Your task to perform on an android device: When is my next appointment? Image 0: 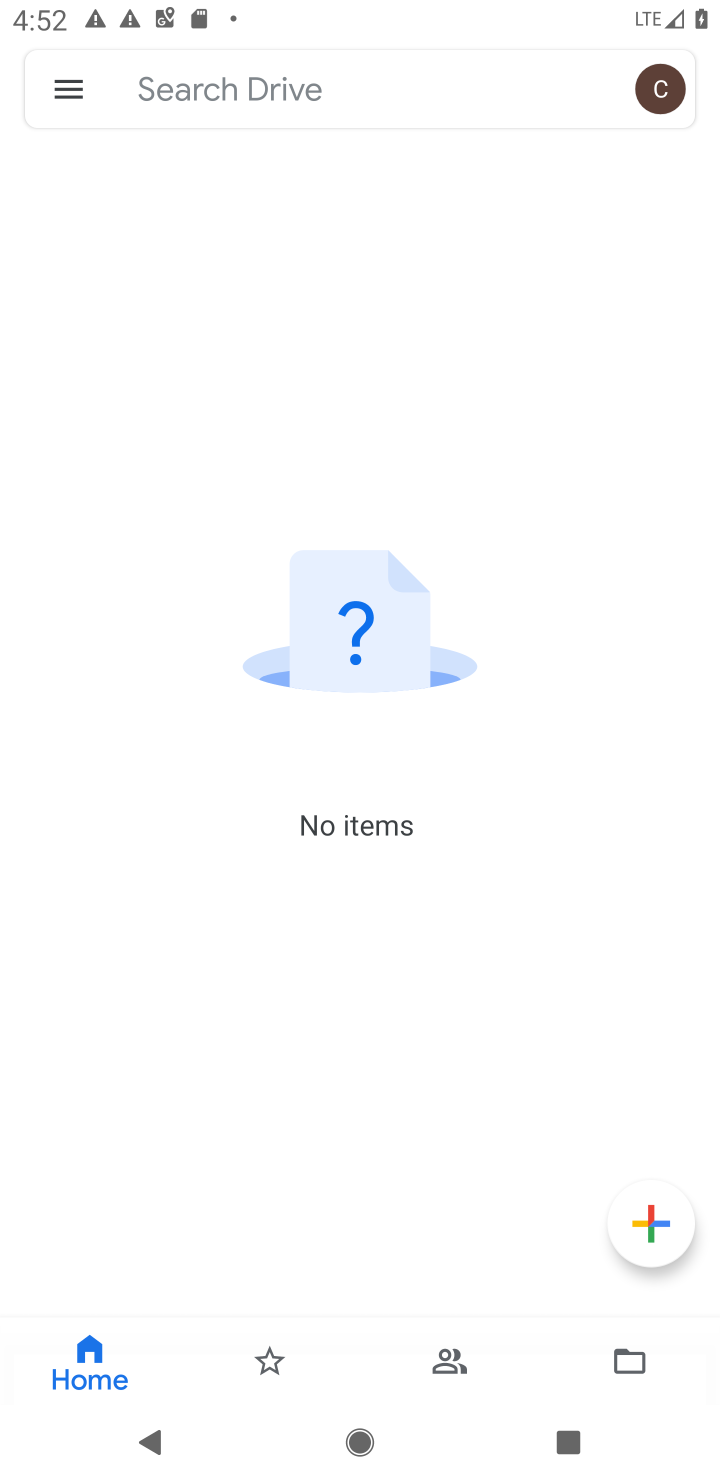
Step 0: press home button
Your task to perform on an android device: When is my next appointment? Image 1: 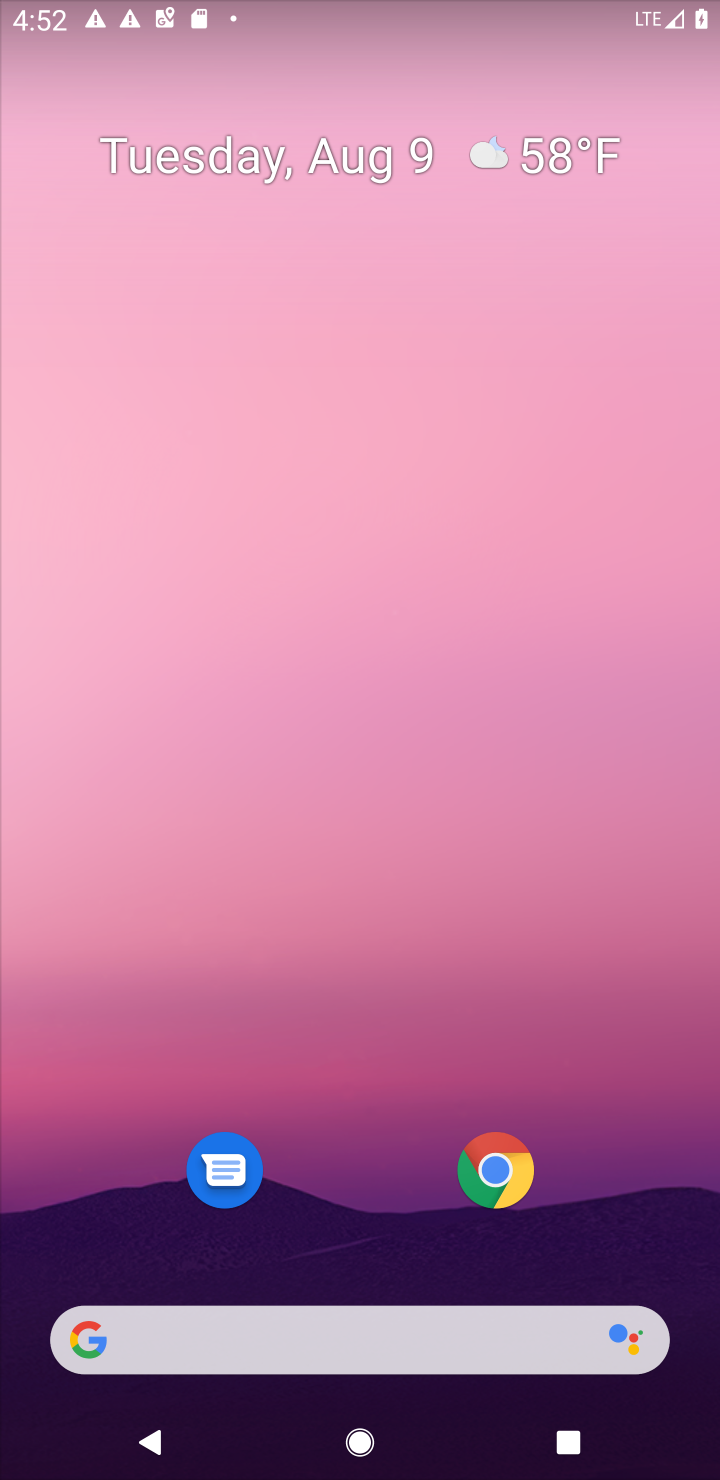
Step 1: drag from (369, 1263) to (398, 30)
Your task to perform on an android device: When is my next appointment? Image 2: 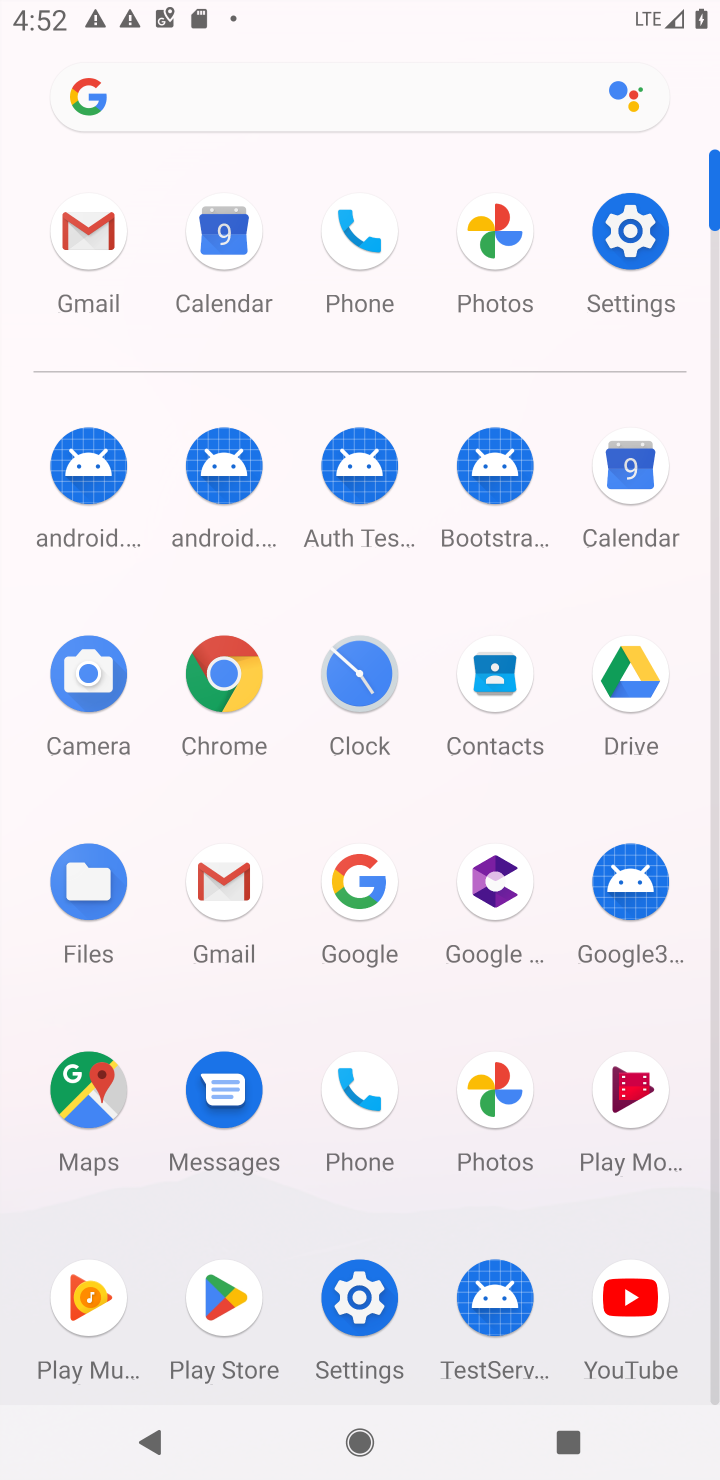
Step 2: click (635, 470)
Your task to perform on an android device: When is my next appointment? Image 3: 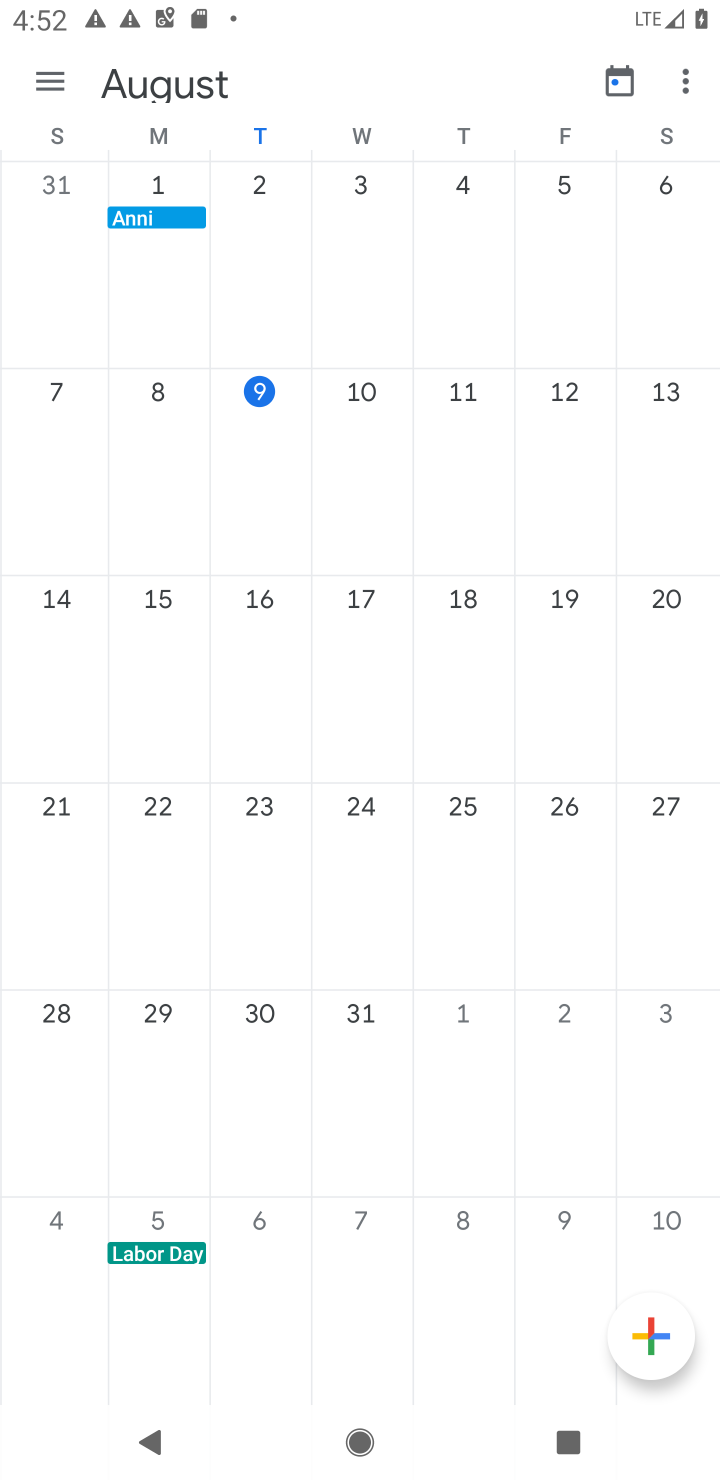
Step 3: click (57, 88)
Your task to perform on an android device: When is my next appointment? Image 4: 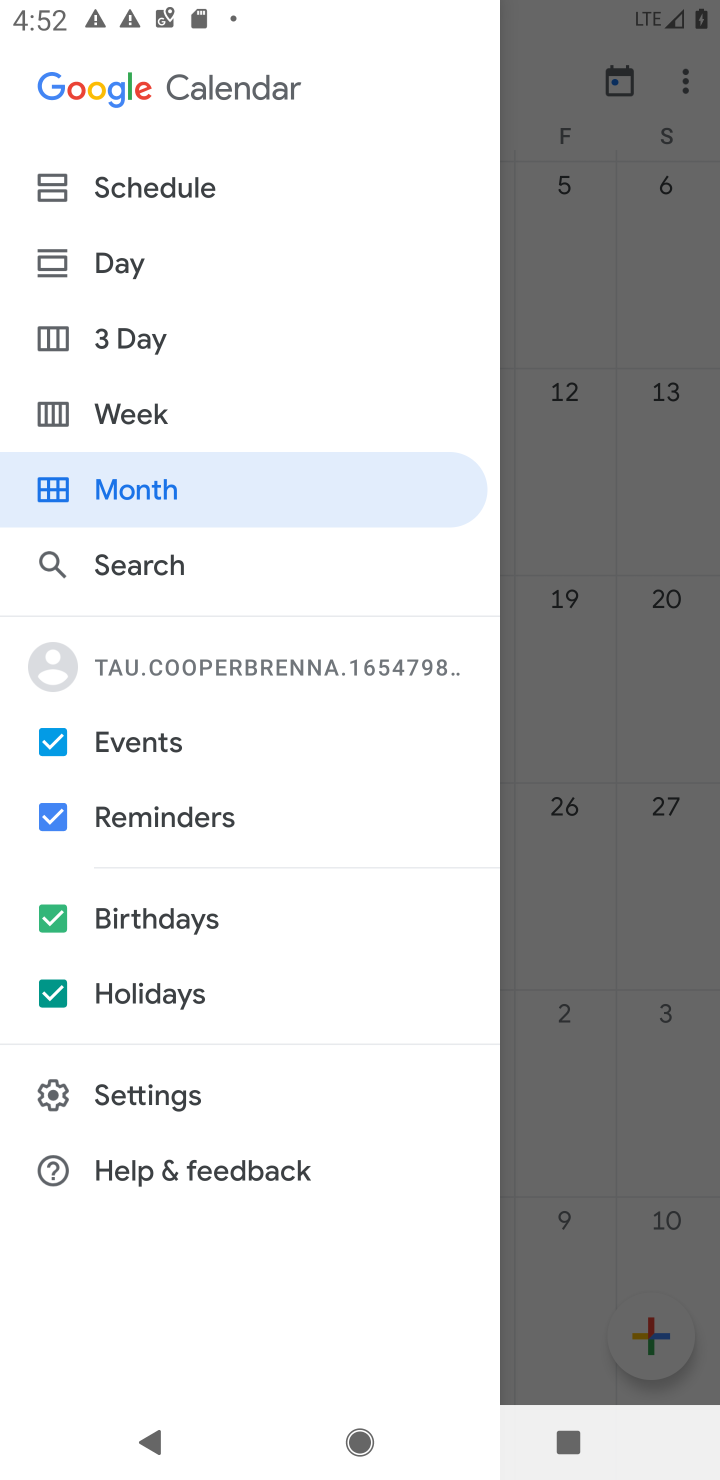
Step 4: click (173, 185)
Your task to perform on an android device: When is my next appointment? Image 5: 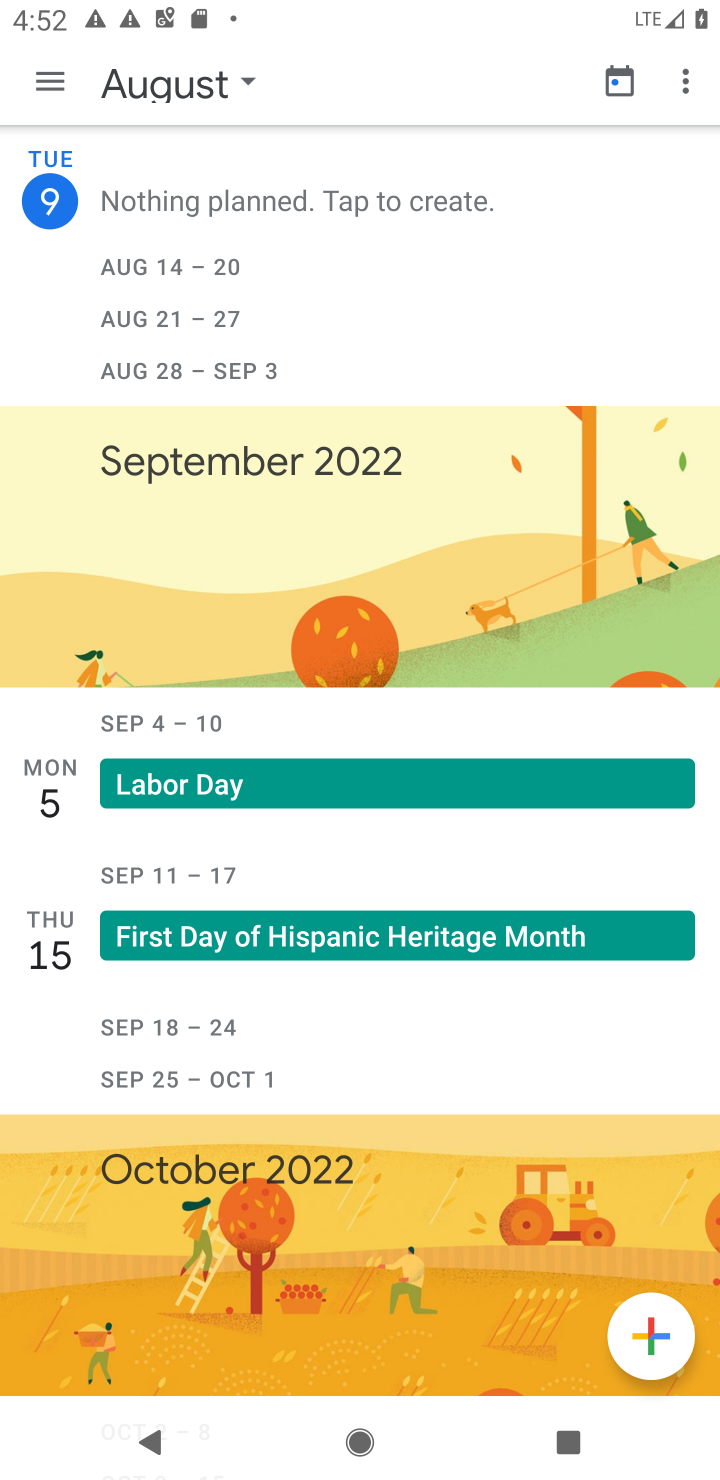
Step 5: task complete